Your task to perform on an android device: Open the web browser Image 0: 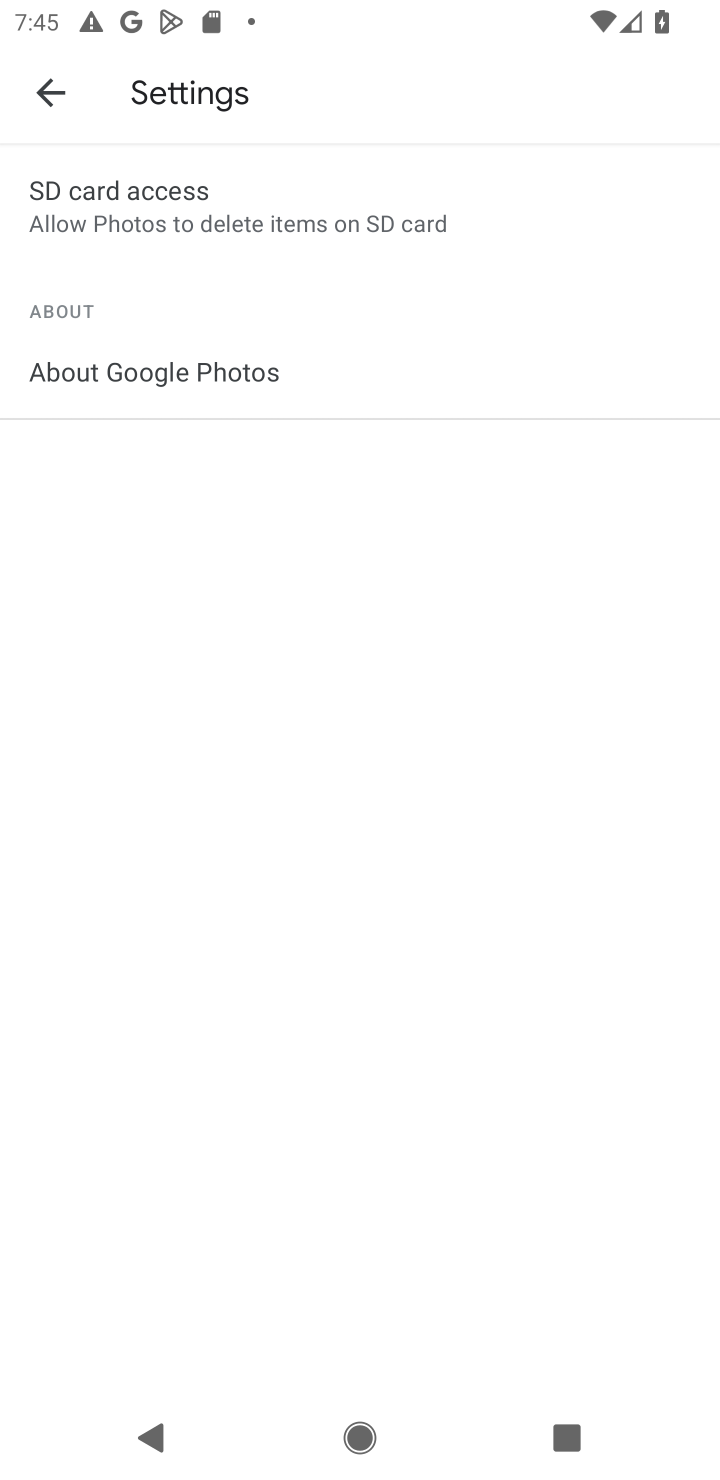
Step 0: press home button
Your task to perform on an android device: Open the web browser Image 1: 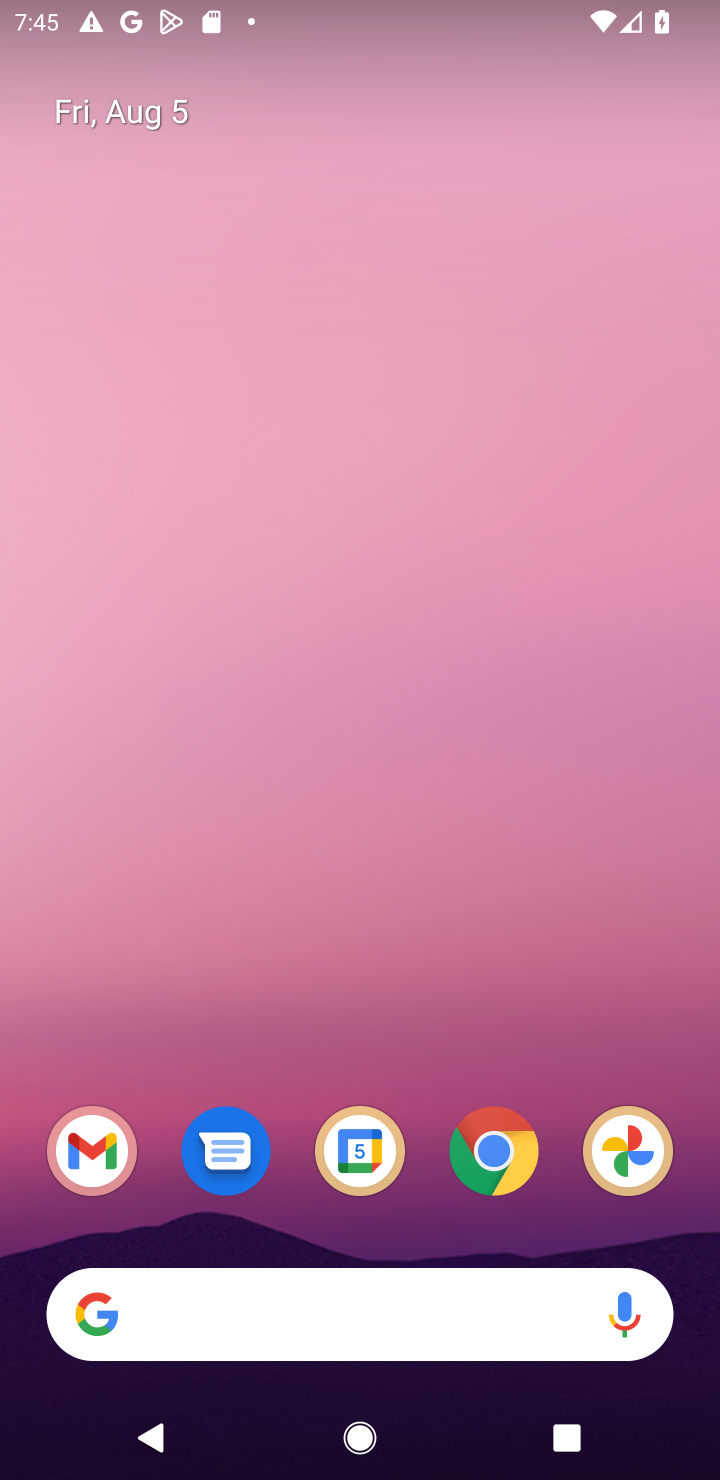
Step 1: drag from (319, 346) to (271, 14)
Your task to perform on an android device: Open the web browser Image 2: 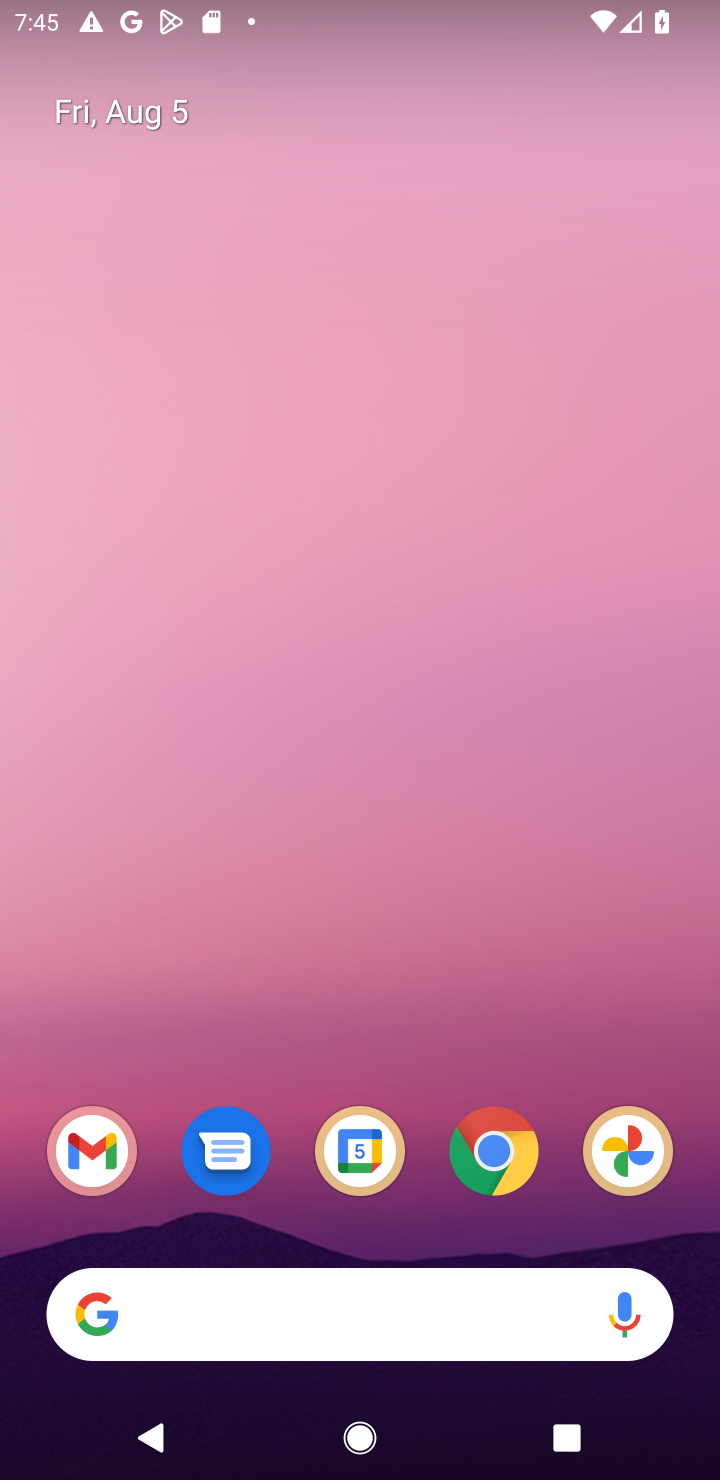
Step 2: click (320, 807)
Your task to perform on an android device: Open the web browser Image 3: 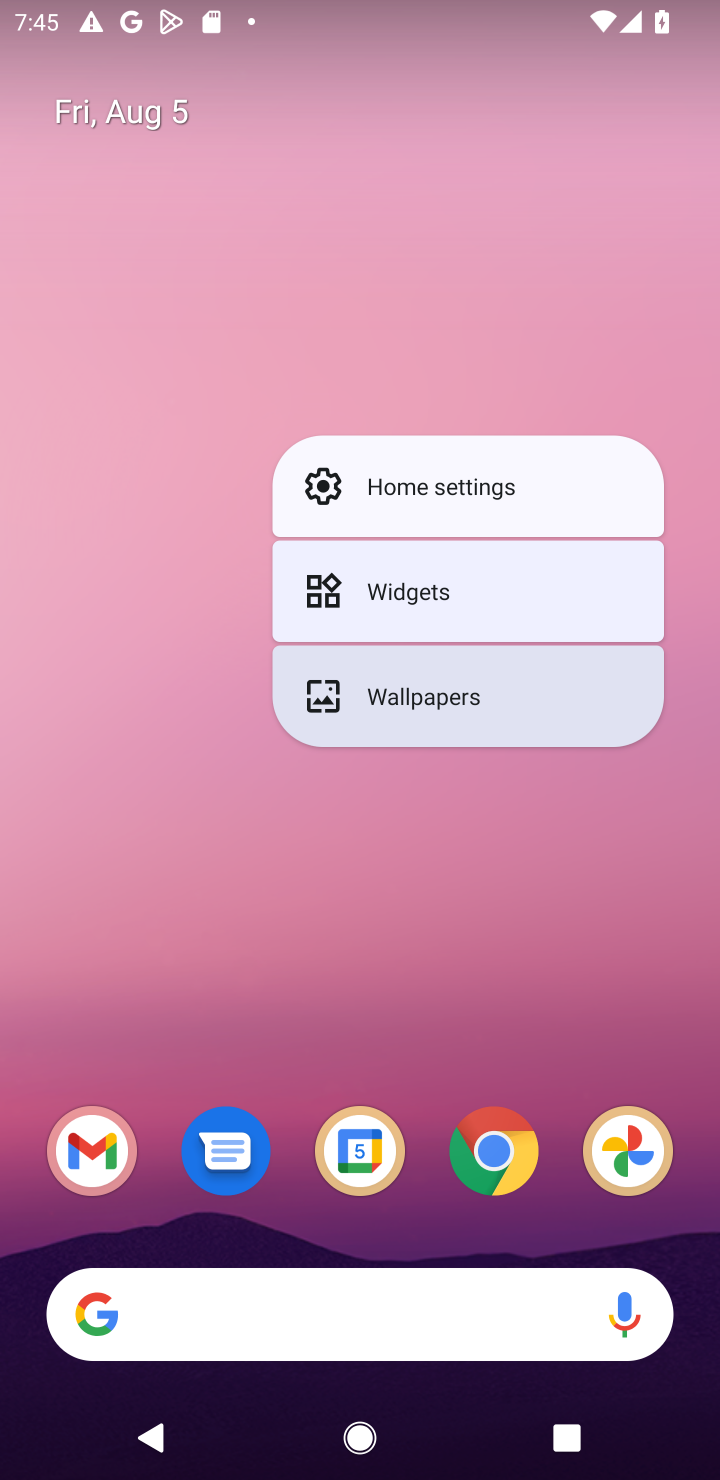
Step 3: click (506, 1177)
Your task to perform on an android device: Open the web browser Image 4: 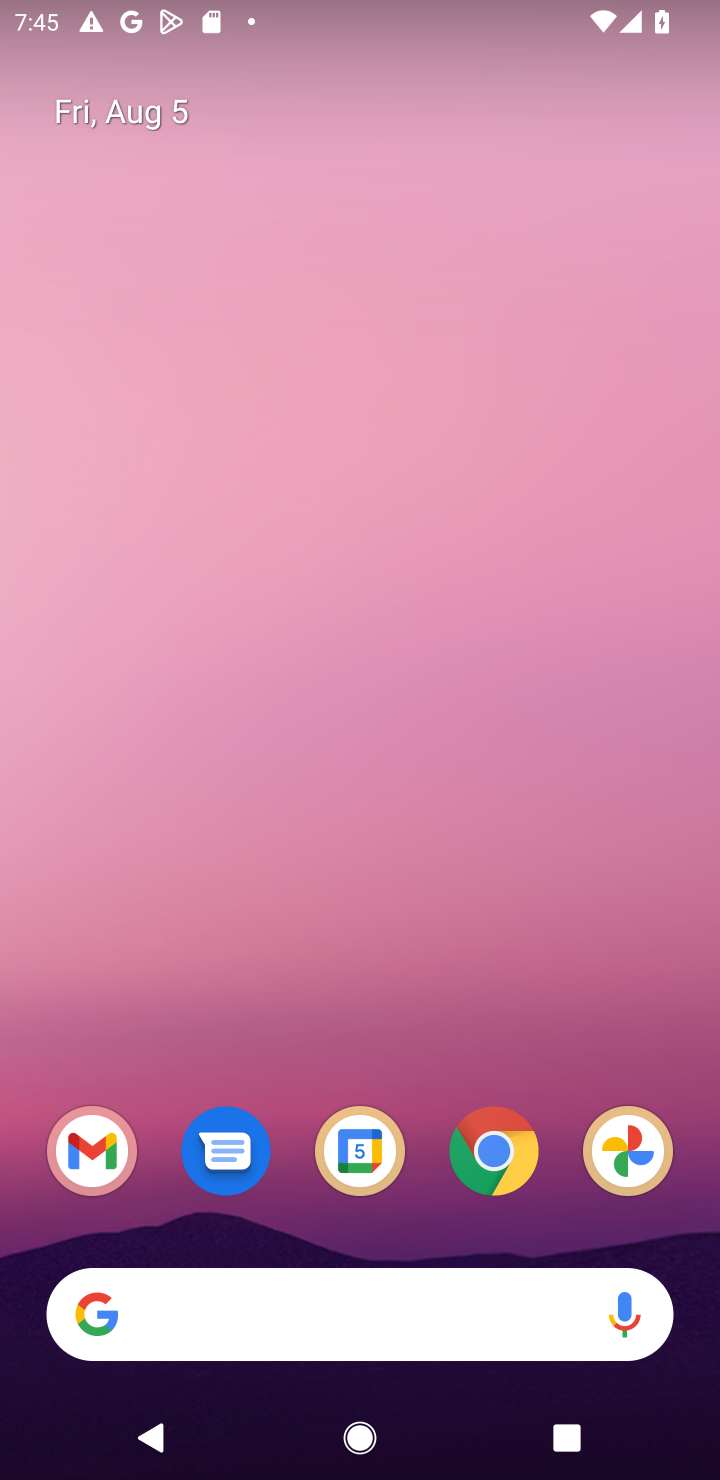
Step 4: click (506, 1175)
Your task to perform on an android device: Open the web browser Image 5: 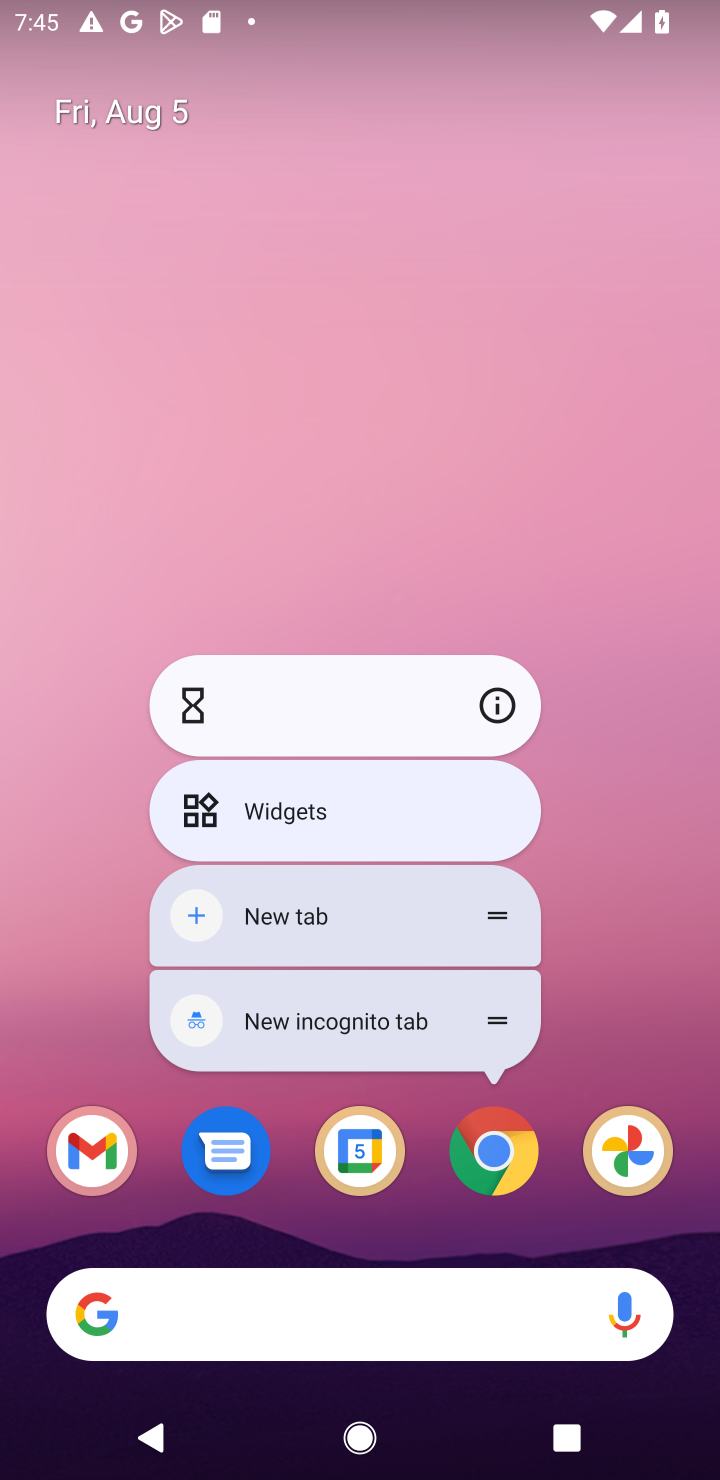
Step 5: click (504, 1169)
Your task to perform on an android device: Open the web browser Image 6: 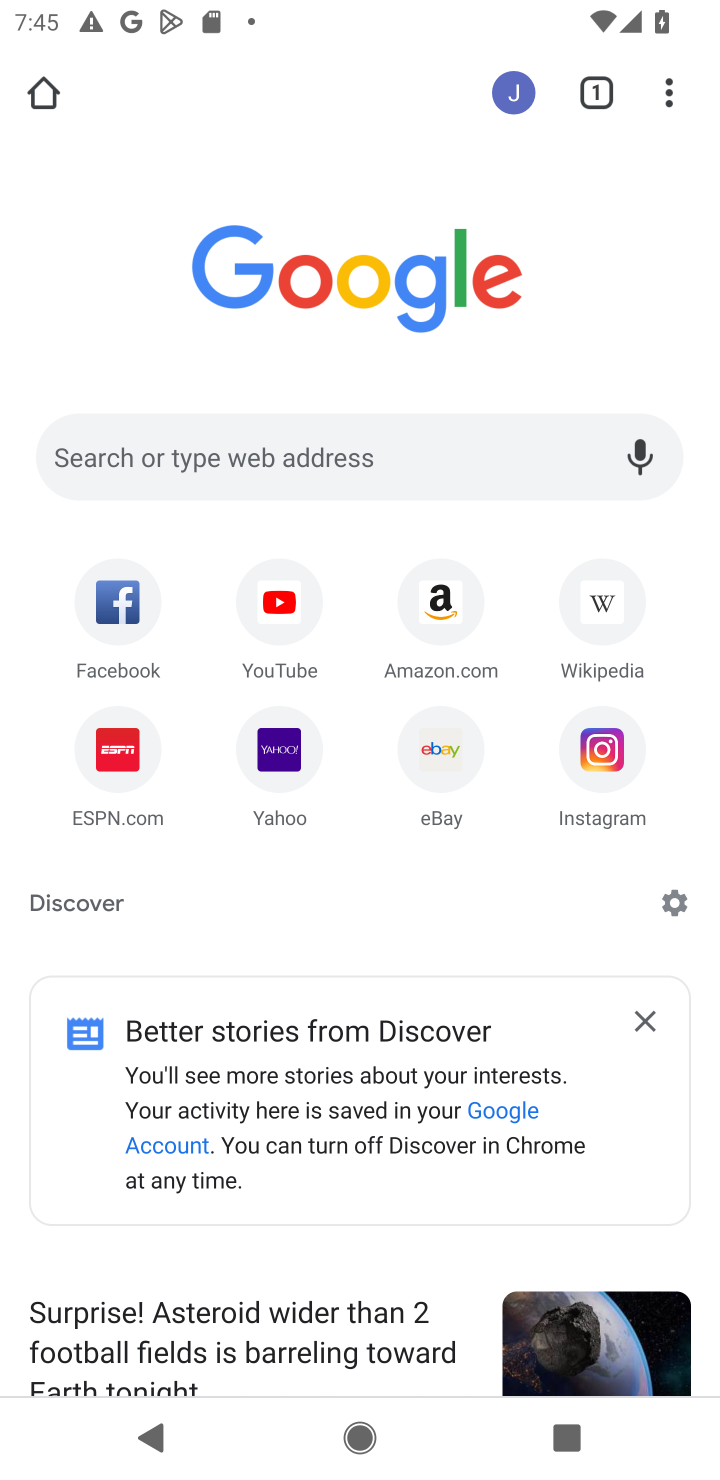
Step 6: task complete